Your task to perform on an android device: Go to Google maps Image 0: 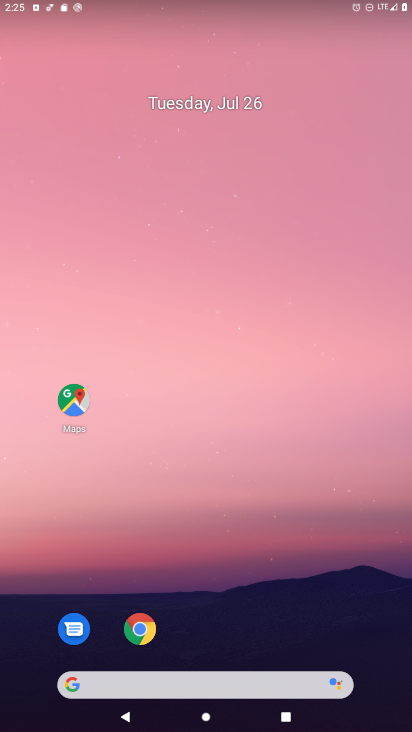
Step 0: click (73, 401)
Your task to perform on an android device: Go to Google maps Image 1: 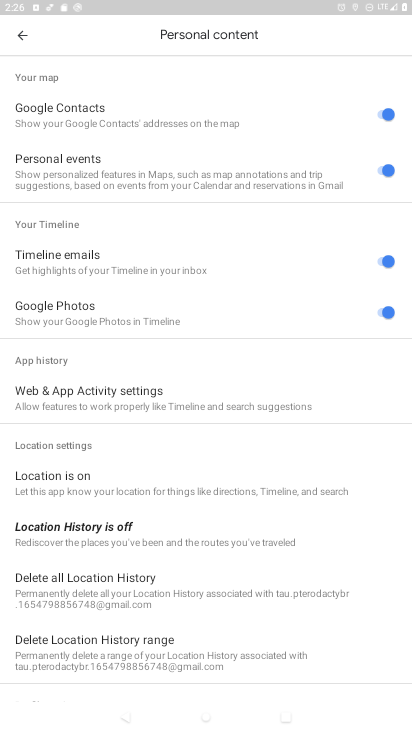
Step 1: task complete